Your task to perform on an android device: toggle translation in the chrome app Image 0: 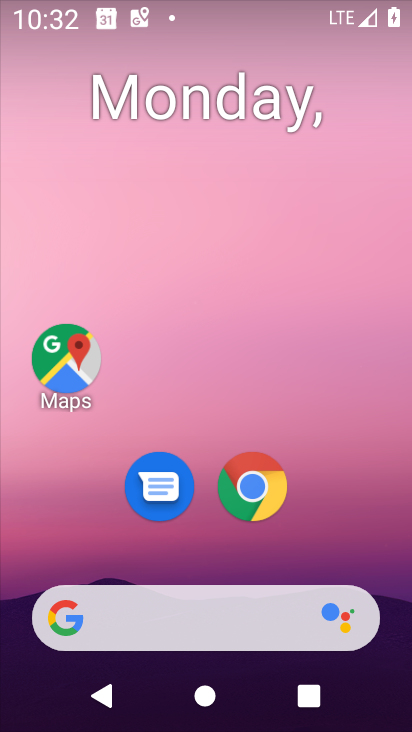
Step 0: click (258, 2)
Your task to perform on an android device: toggle translation in the chrome app Image 1: 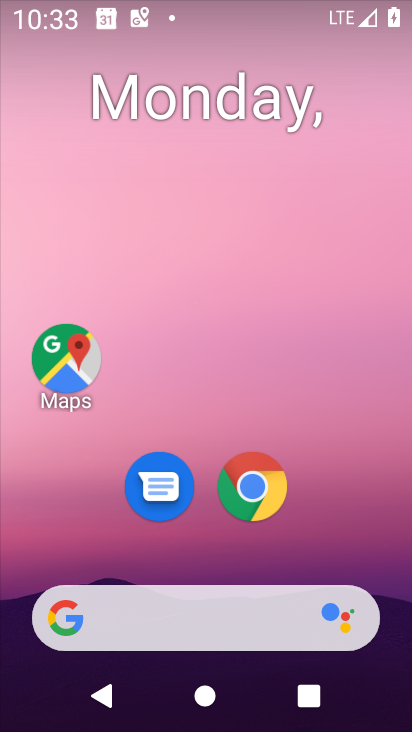
Step 1: drag from (352, 520) to (232, 41)
Your task to perform on an android device: toggle translation in the chrome app Image 2: 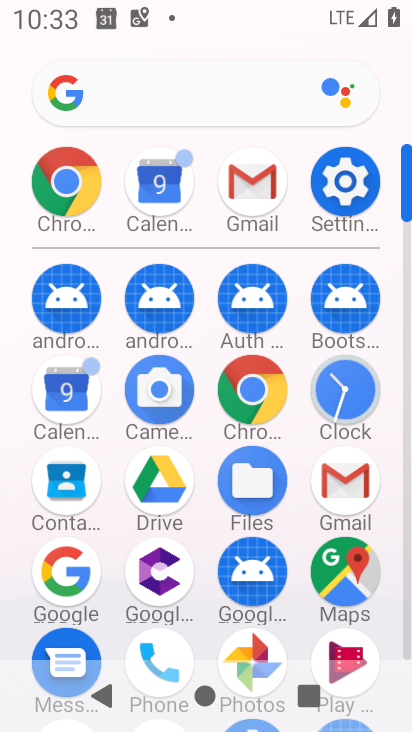
Step 2: click (252, 386)
Your task to perform on an android device: toggle translation in the chrome app Image 3: 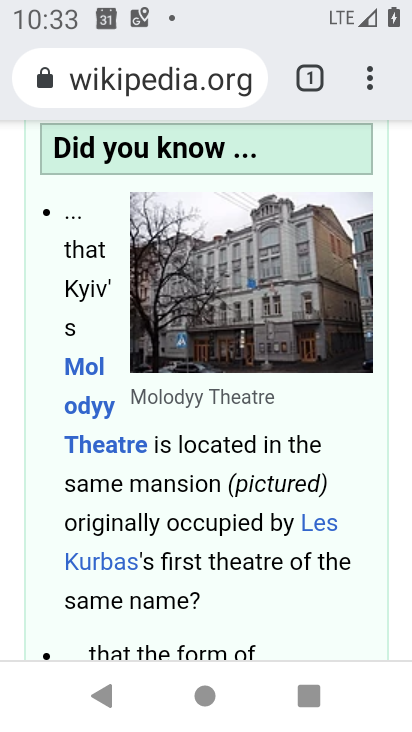
Step 3: drag from (186, 584) to (100, 179)
Your task to perform on an android device: toggle translation in the chrome app Image 4: 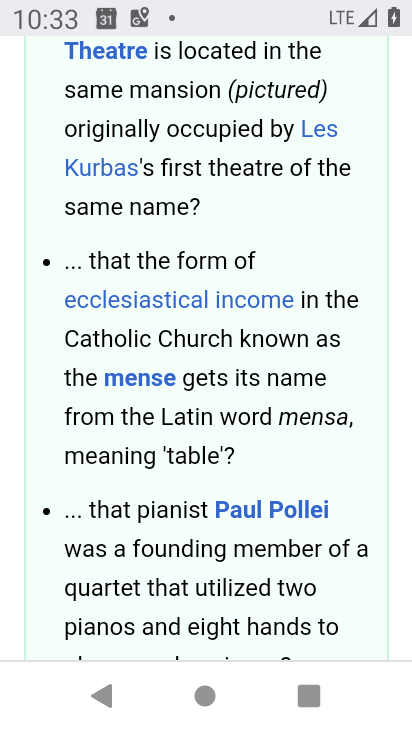
Step 4: drag from (193, 490) to (210, 82)
Your task to perform on an android device: toggle translation in the chrome app Image 5: 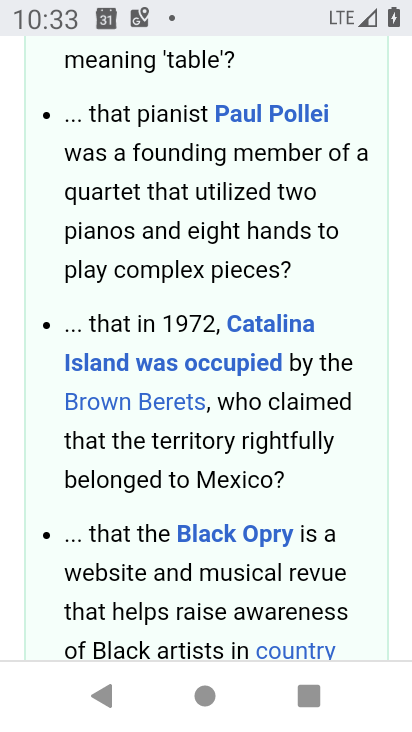
Step 5: drag from (180, 503) to (196, 63)
Your task to perform on an android device: toggle translation in the chrome app Image 6: 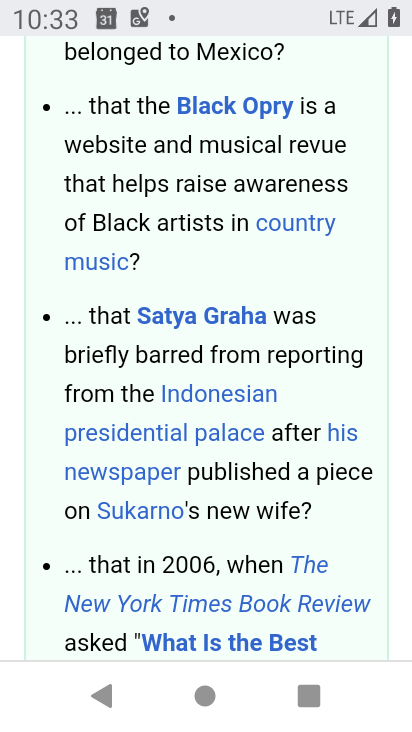
Step 6: drag from (196, 490) to (197, 108)
Your task to perform on an android device: toggle translation in the chrome app Image 7: 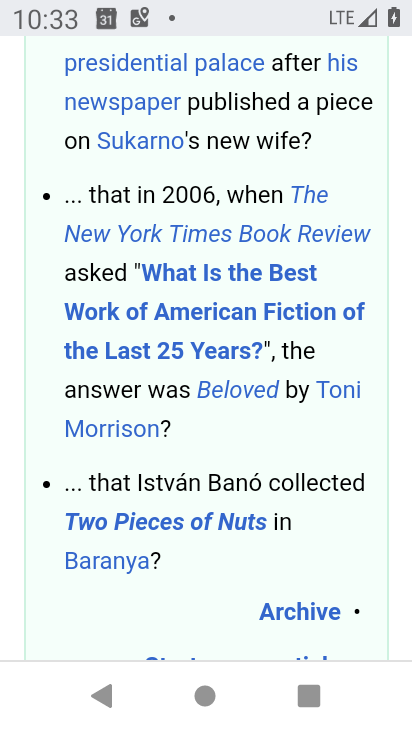
Step 7: drag from (198, 488) to (222, 113)
Your task to perform on an android device: toggle translation in the chrome app Image 8: 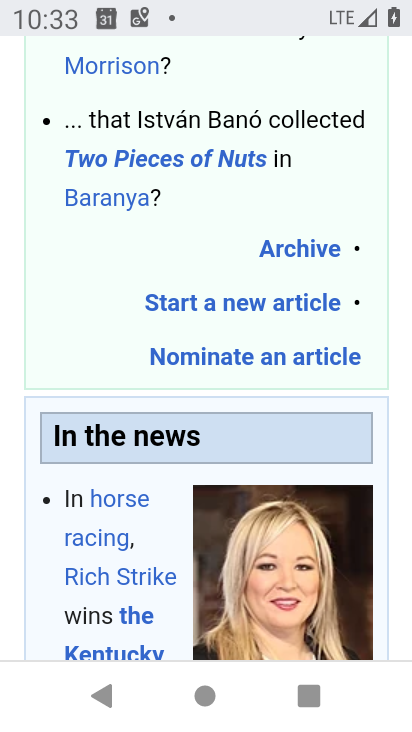
Step 8: drag from (126, 578) to (182, 130)
Your task to perform on an android device: toggle translation in the chrome app Image 9: 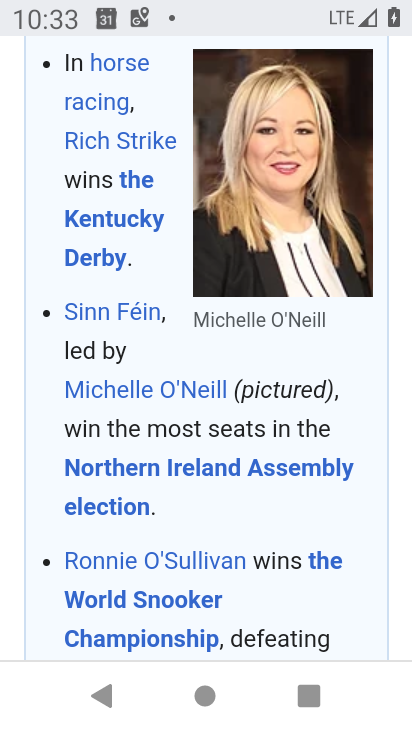
Step 9: drag from (134, 476) to (141, 91)
Your task to perform on an android device: toggle translation in the chrome app Image 10: 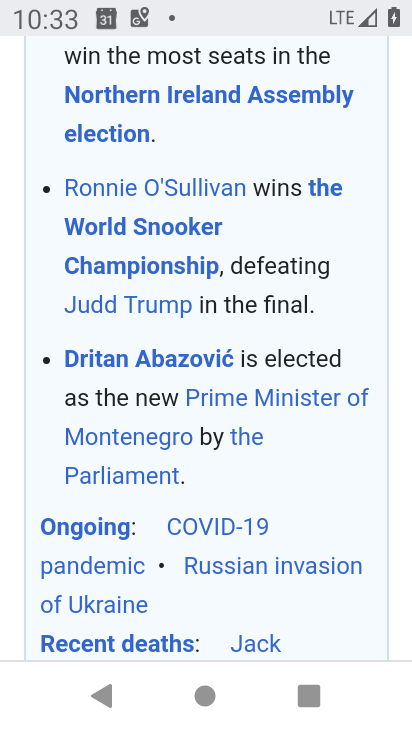
Step 10: drag from (278, 123) to (294, 580)
Your task to perform on an android device: toggle translation in the chrome app Image 11: 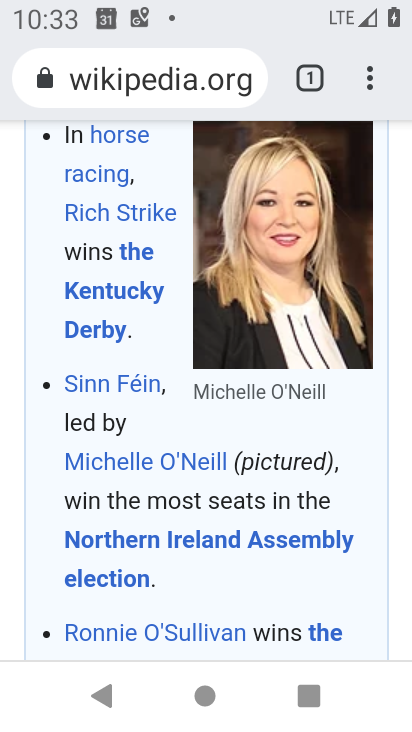
Step 11: drag from (364, 76) to (103, 550)
Your task to perform on an android device: toggle translation in the chrome app Image 12: 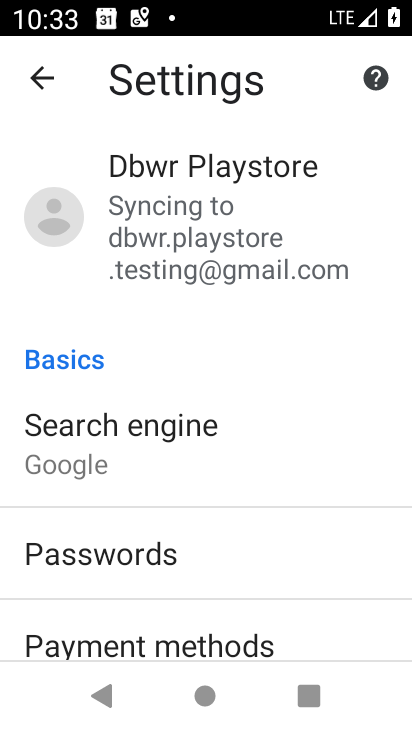
Step 12: drag from (245, 575) to (273, 152)
Your task to perform on an android device: toggle translation in the chrome app Image 13: 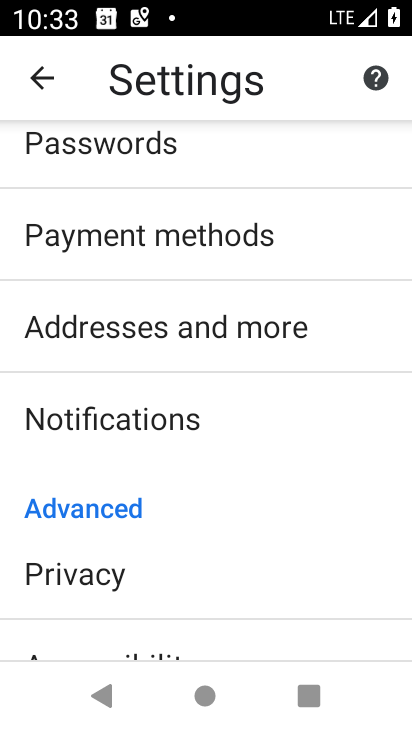
Step 13: drag from (203, 575) to (268, 182)
Your task to perform on an android device: toggle translation in the chrome app Image 14: 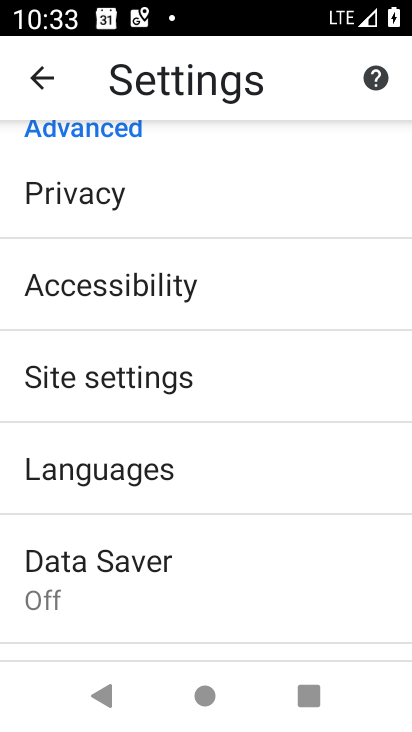
Step 14: drag from (193, 574) to (235, 254)
Your task to perform on an android device: toggle translation in the chrome app Image 15: 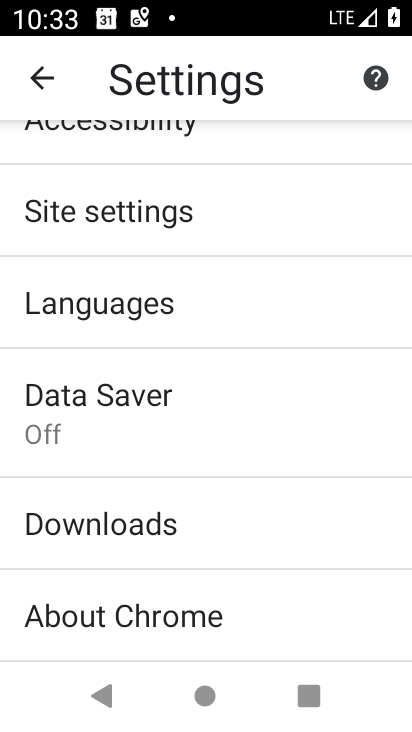
Step 15: click (174, 296)
Your task to perform on an android device: toggle translation in the chrome app Image 16: 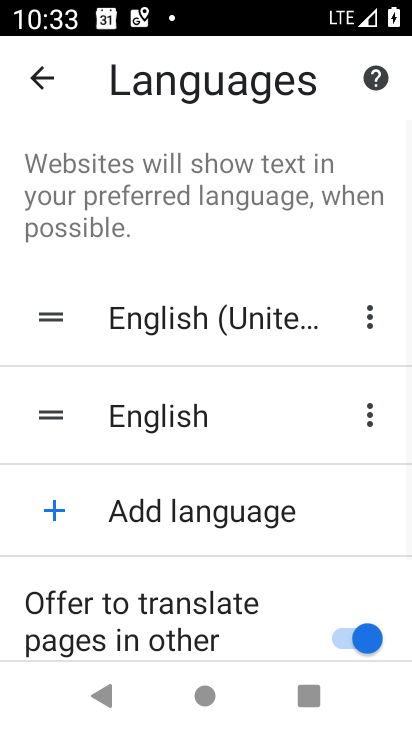
Step 16: task complete